Your task to perform on an android device: Open Reddit.com Image 0: 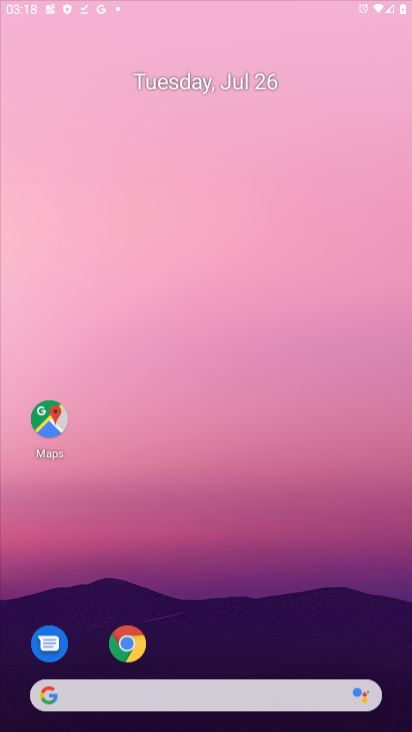
Step 0: click (118, 137)
Your task to perform on an android device: Open Reddit.com Image 1: 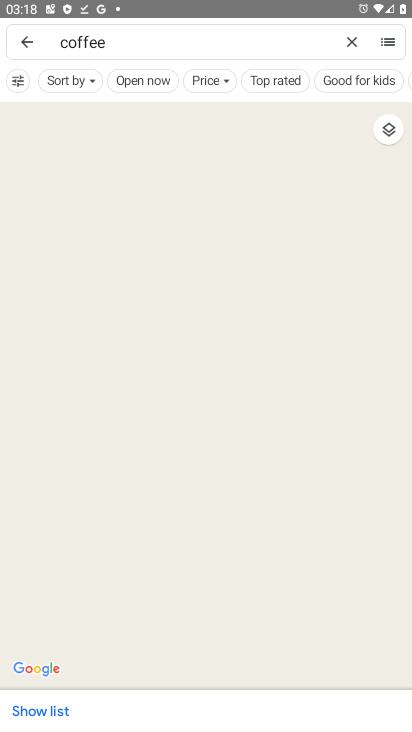
Step 1: press home button
Your task to perform on an android device: Open Reddit.com Image 2: 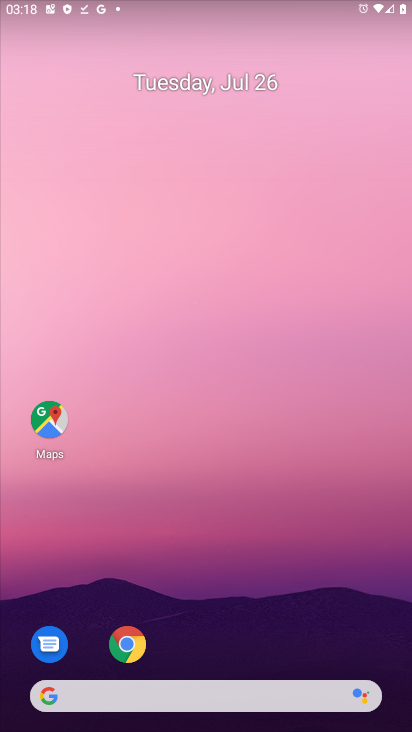
Step 2: press home button
Your task to perform on an android device: Open Reddit.com Image 3: 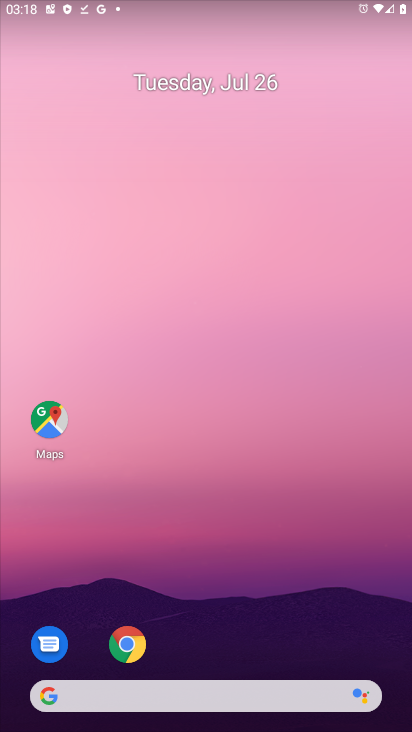
Step 3: click (136, 632)
Your task to perform on an android device: Open Reddit.com Image 4: 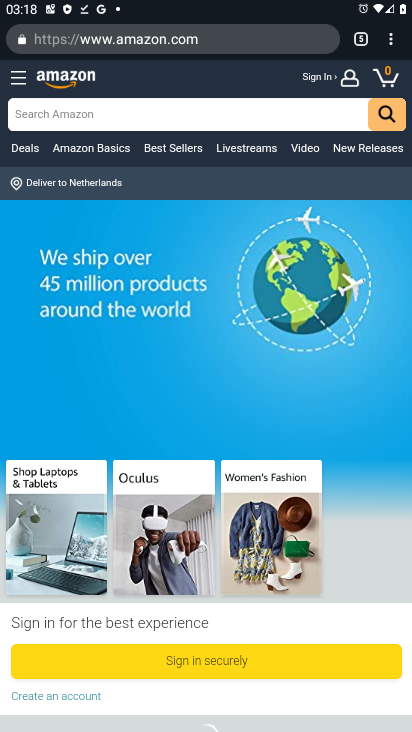
Step 4: click (364, 36)
Your task to perform on an android device: Open Reddit.com Image 5: 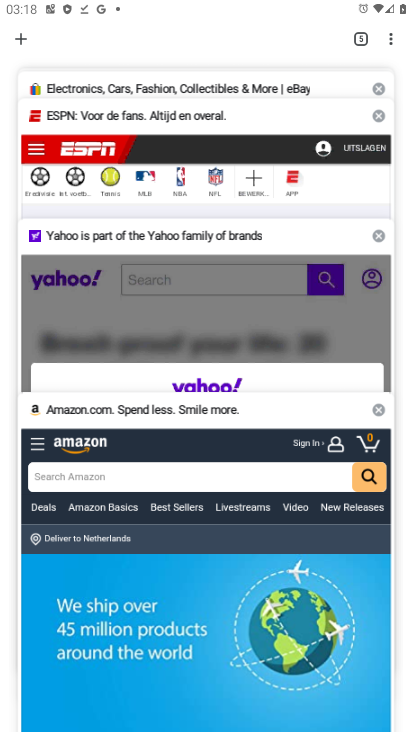
Step 5: click (15, 39)
Your task to perform on an android device: Open Reddit.com Image 6: 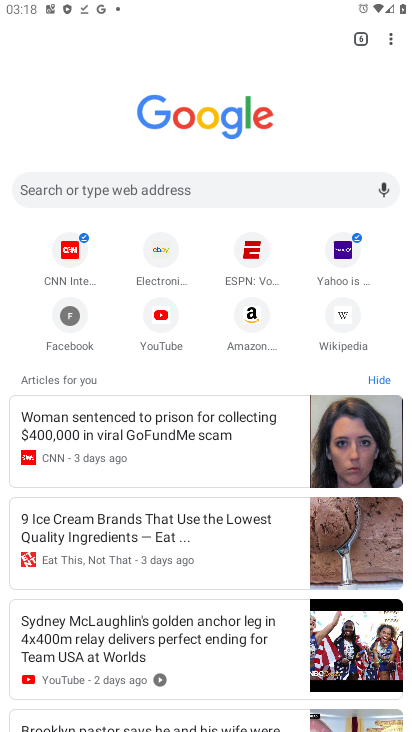
Step 6: click (121, 189)
Your task to perform on an android device: Open Reddit.com Image 7: 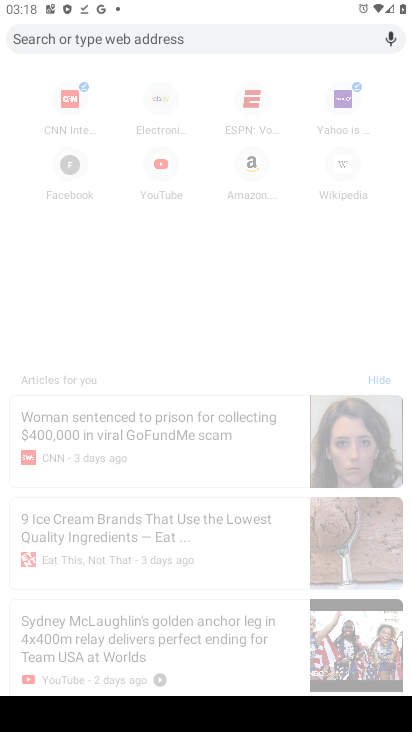
Step 7: type "Reddit.com"
Your task to perform on an android device: Open Reddit.com Image 8: 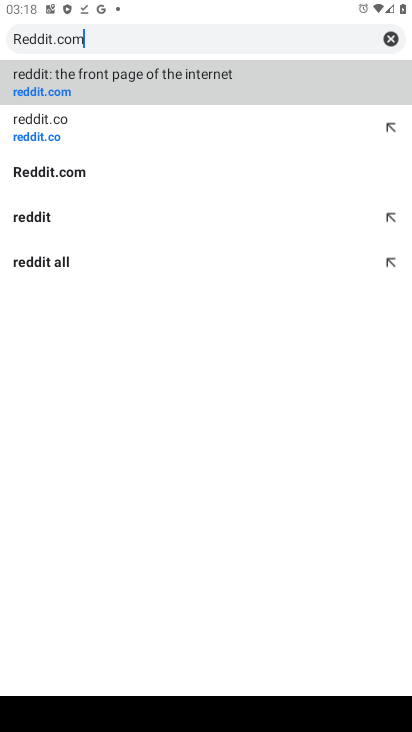
Step 8: type ""
Your task to perform on an android device: Open Reddit.com Image 9: 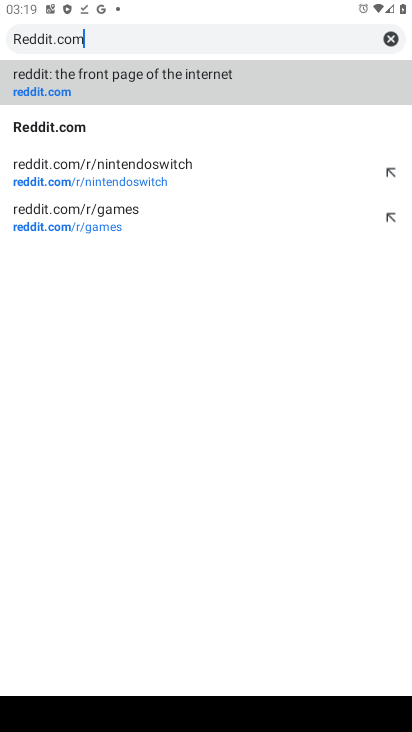
Step 9: click (93, 173)
Your task to perform on an android device: Open Reddit.com Image 10: 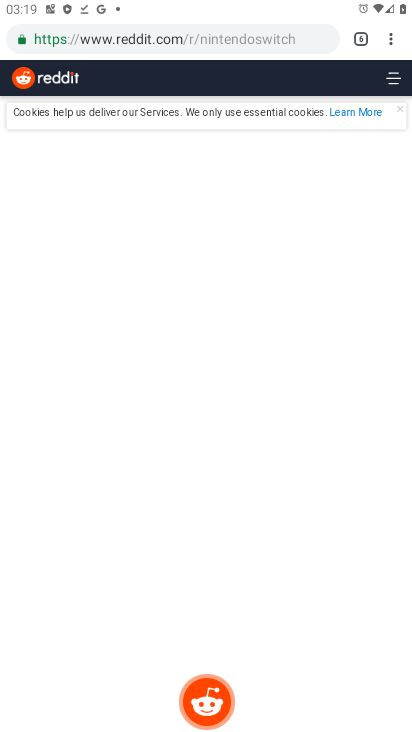
Step 10: task complete